Your task to perform on an android device: Show me productivity apps on the Play Store Image 0: 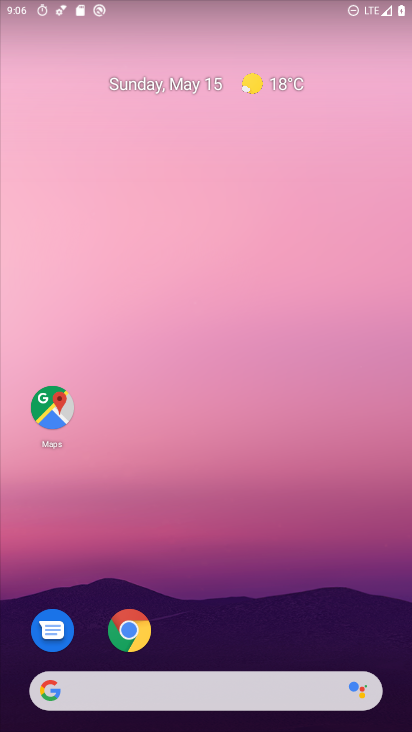
Step 0: drag from (277, 583) to (302, 357)
Your task to perform on an android device: Show me productivity apps on the Play Store Image 1: 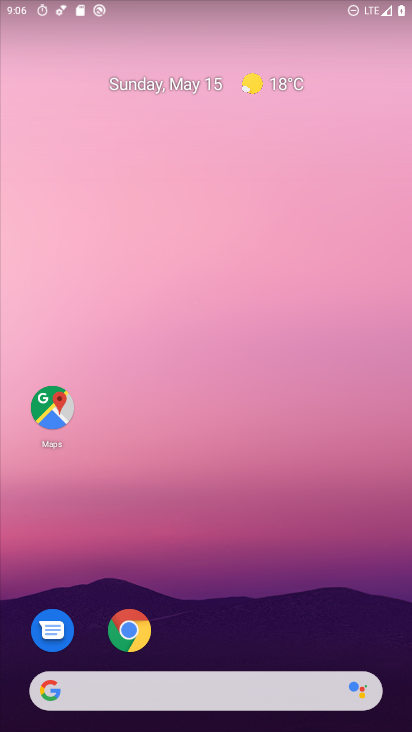
Step 1: drag from (206, 626) to (399, 123)
Your task to perform on an android device: Show me productivity apps on the Play Store Image 2: 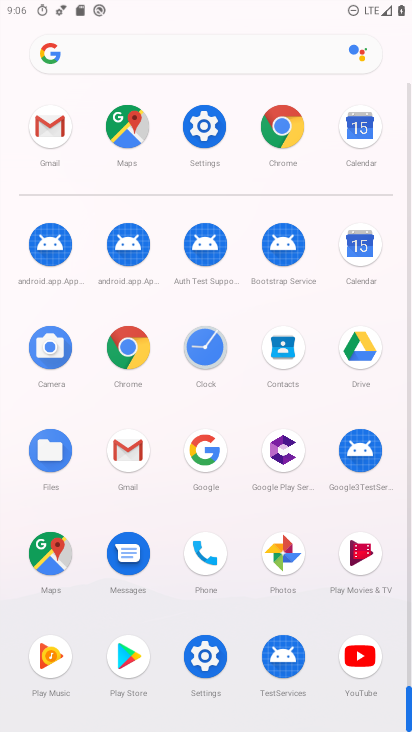
Step 2: click (123, 652)
Your task to perform on an android device: Show me productivity apps on the Play Store Image 3: 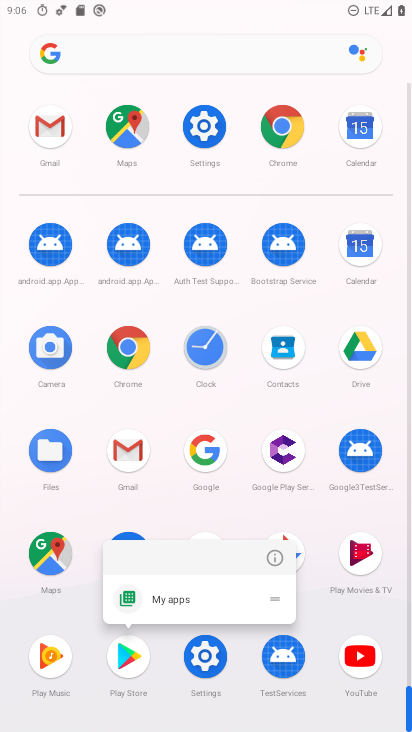
Step 3: click (266, 552)
Your task to perform on an android device: Show me productivity apps on the Play Store Image 4: 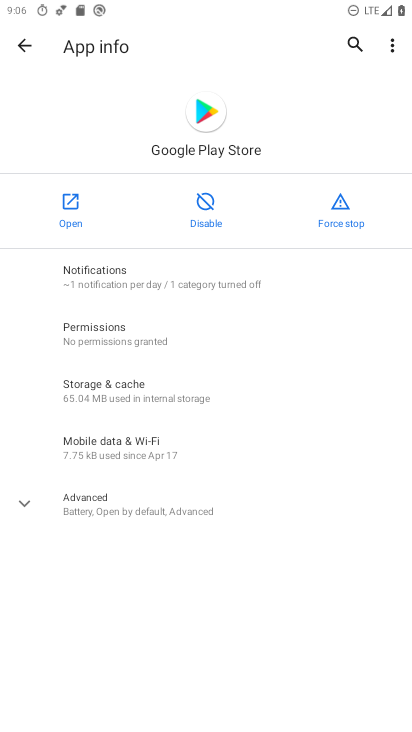
Step 4: click (80, 205)
Your task to perform on an android device: Show me productivity apps on the Play Store Image 5: 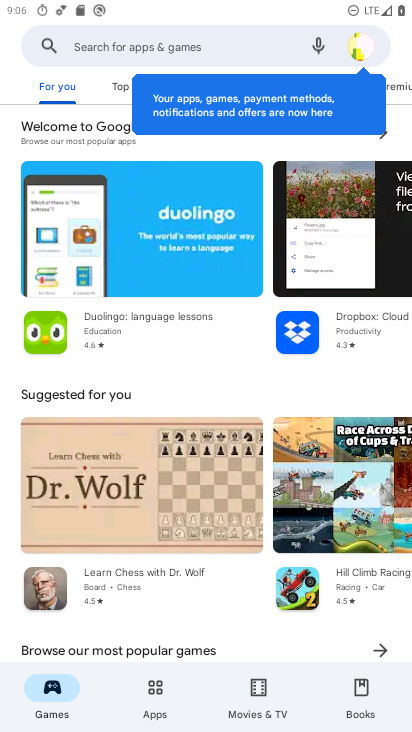
Step 5: task complete